Your task to perform on an android device: turn off picture-in-picture Image 0: 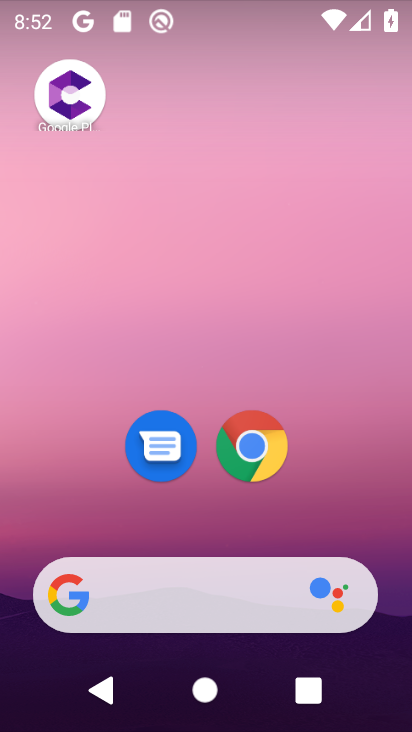
Step 0: drag from (363, 425) to (367, 78)
Your task to perform on an android device: turn off picture-in-picture Image 1: 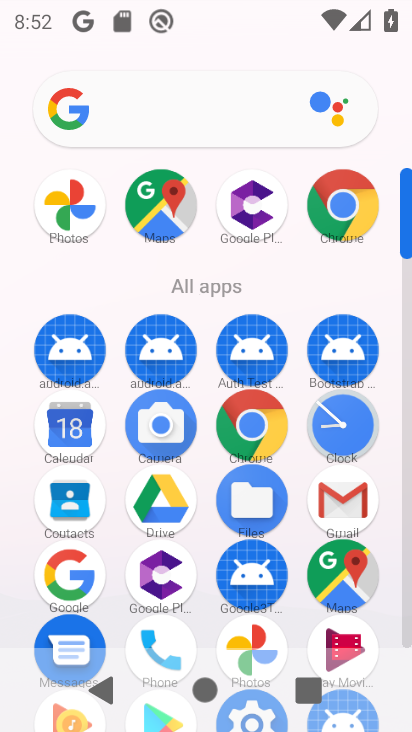
Step 1: drag from (389, 522) to (395, 226)
Your task to perform on an android device: turn off picture-in-picture Image 2: 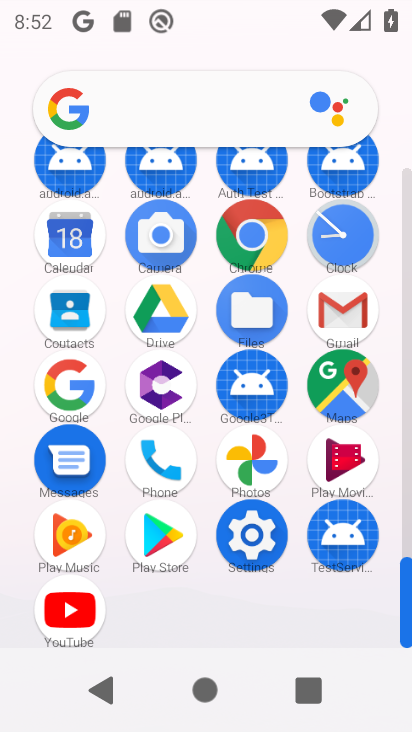
Step 2: click (255, 532)
Your task to perform on an android device: turn off picture-in-picture Image 3: 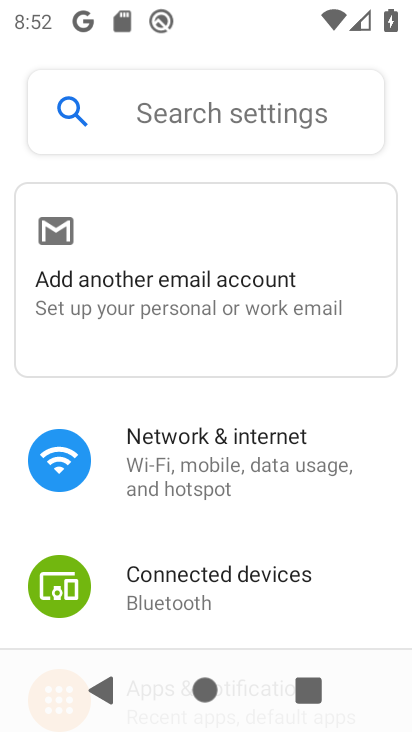
Step 3: drag from (374, 590) to (387, 382)
Your task to perform on an android device: turn off picture-in-picture Image 4: 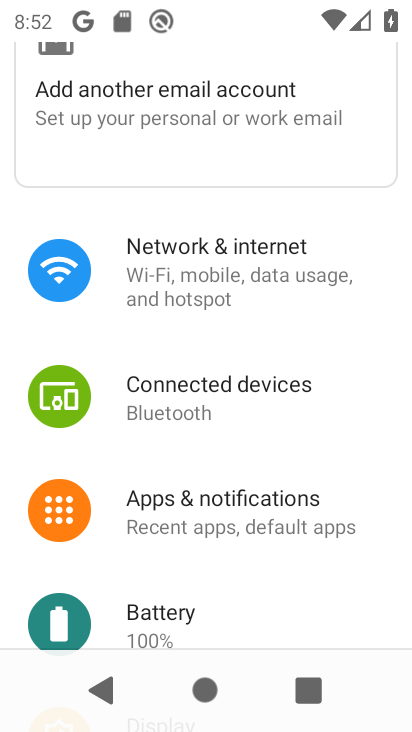
Step 4: drag from (364, 592) to (381, 404)
Your task to perform on an android device: turn off picture-in-picture Image 5: 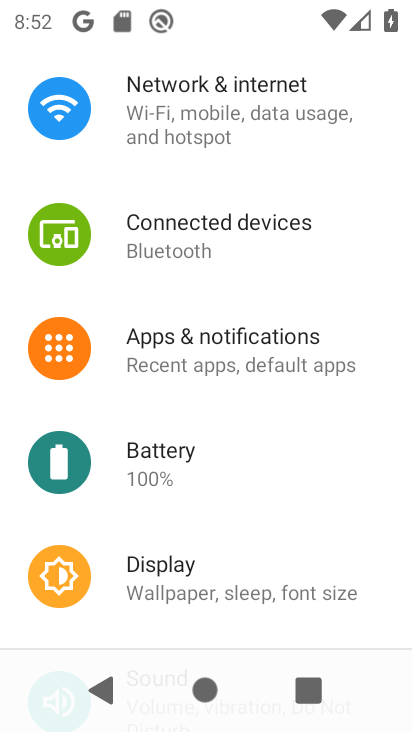
Step 5: click (263, 353)
Your task to perform on an android device: turn off picture-in-picture Image 6: 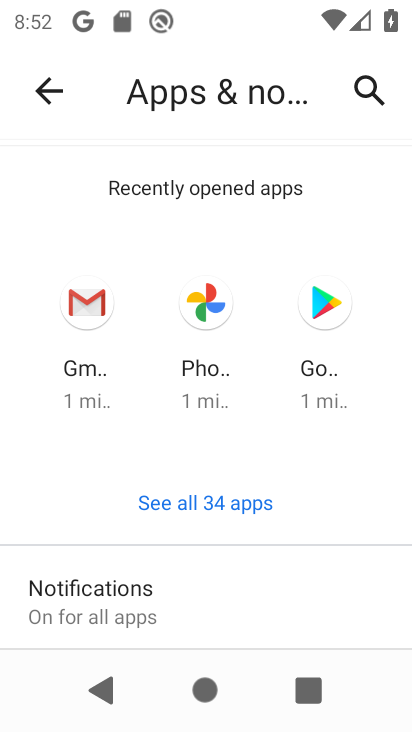
Step 6: drag from (366, 561) to (379, 349)
Your task to perform on an android device: turn off picture-in-picture Image 7: 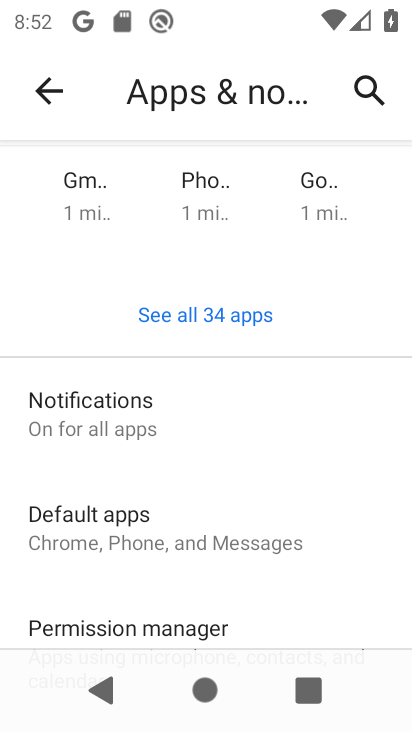
Step 7: drag from (360, 563) to (378, 305)
Your task to perform on an android device: turn off picture-in-picture Image 8: 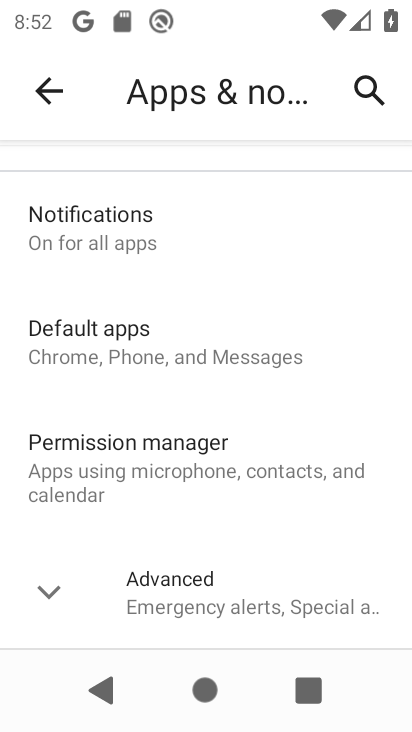
Step 8: click (310, 599)
Your task to perform on an android device: turn off picture-in-picture Image 9: 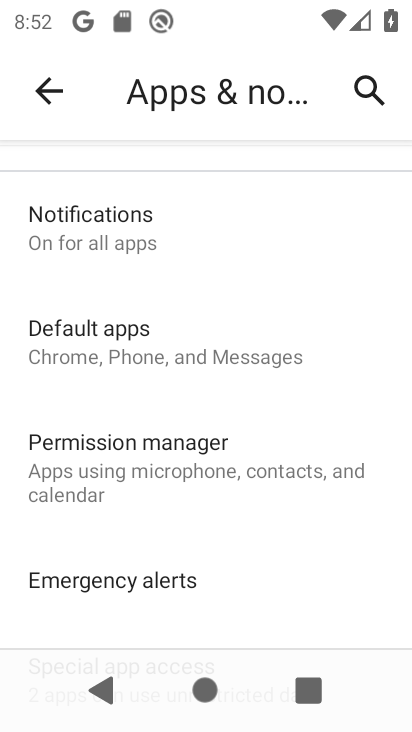
Step 9: drag from (380, 585) to (382, 344)
Your task to perform on an android device: turn off picture-in-picture Image 10: 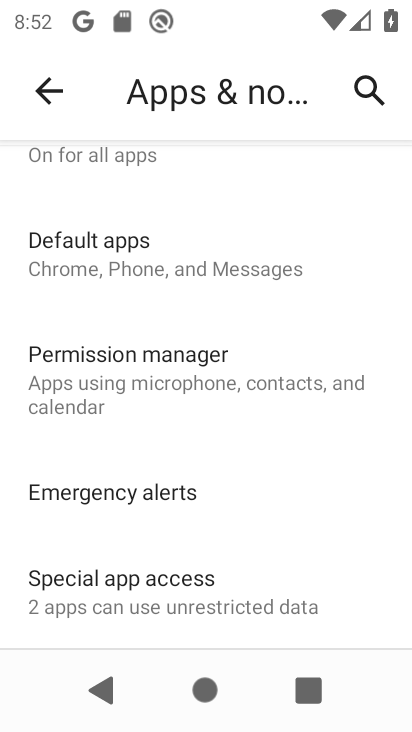
Step 10: click (267, 604)
Your task to perform on an android device: turn off picture-in-picture Image 11: 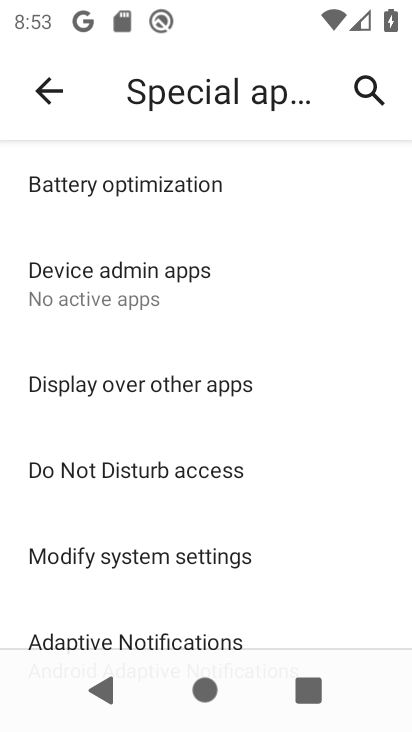
Step 11: drag from (368, 592) to (378, 429)
Your task to perform on an android device: turn off picture-in-picture Image 12: 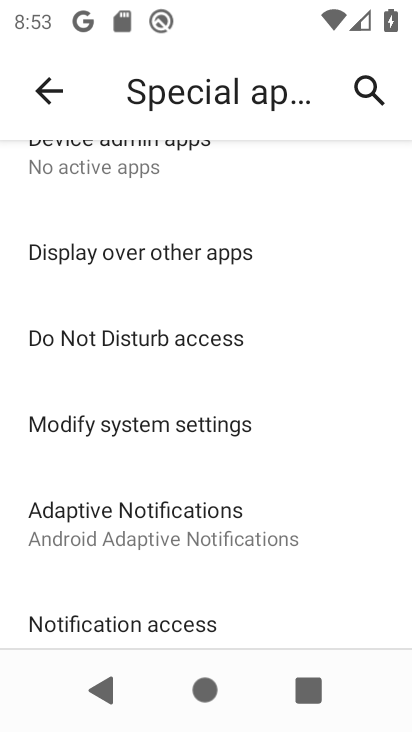
Step 12: drag from (362, 603) to (358, 382)
Your task to perform on an android device: turn off picture-in-picture Image 13: 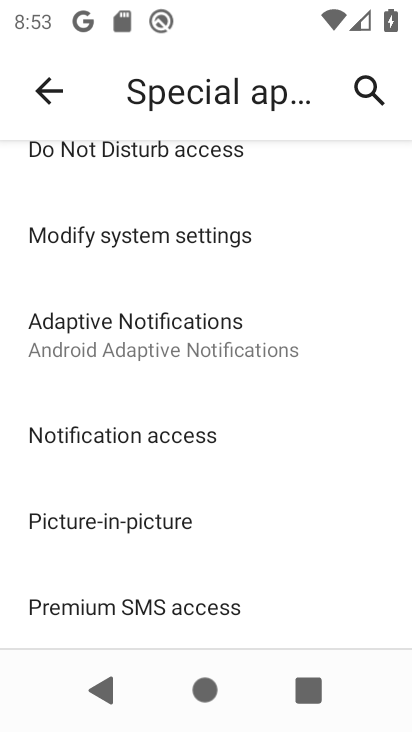
Step 13: drag from (375, 563) to (370, 388)
Your task to perform on an android device: turn off picture-in-picture Image 14: 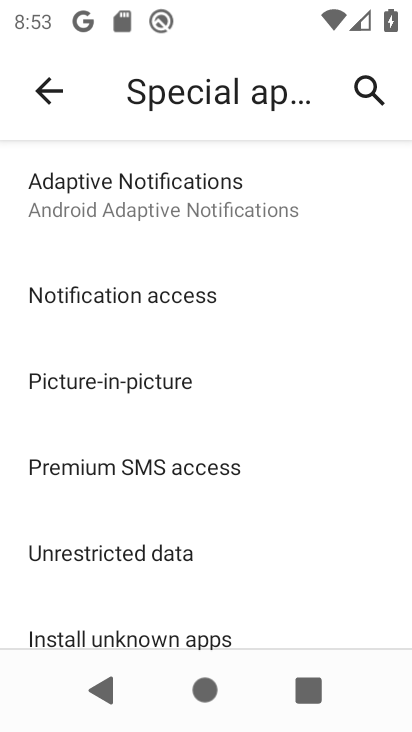
Step 14: click (168, 384)
Your task to perform on an android device: turn off picture-in-picture Image 15: 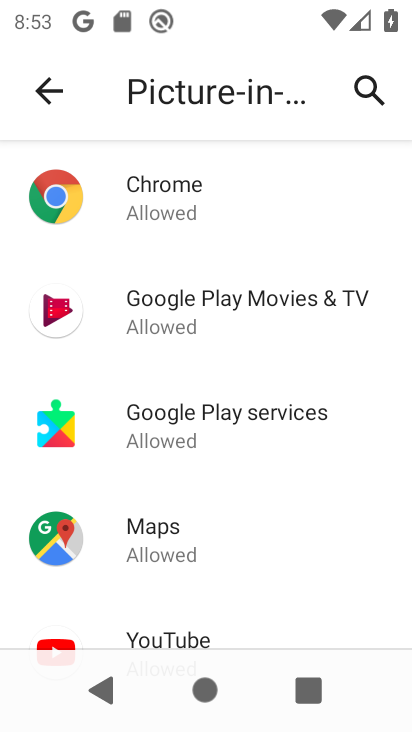
Step 15: drag from (365, 589) to (358, 361)
Your task to perform on an android device: turn off picture-in-picture Image 16: 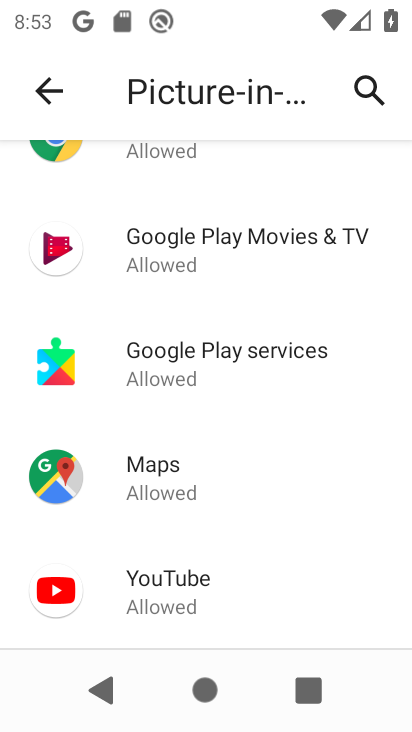
Step 16: click (186, 603)
Your task to perform on an android device: turn off picture-in-picture Image 17: 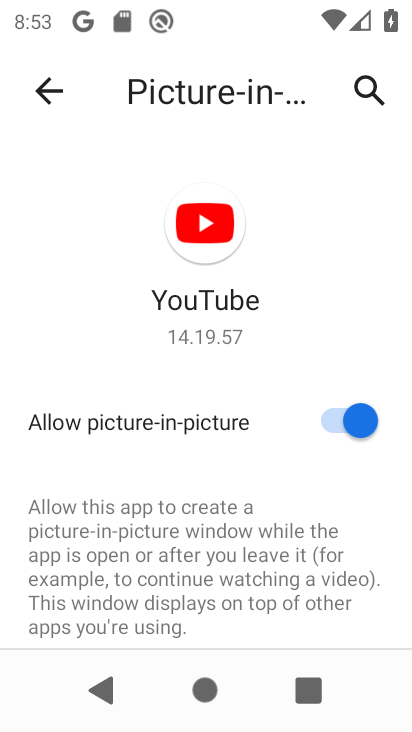
Step 17: click (335, 417)
Your task to perform on an android device: turn off picture-in-picture Image 18: 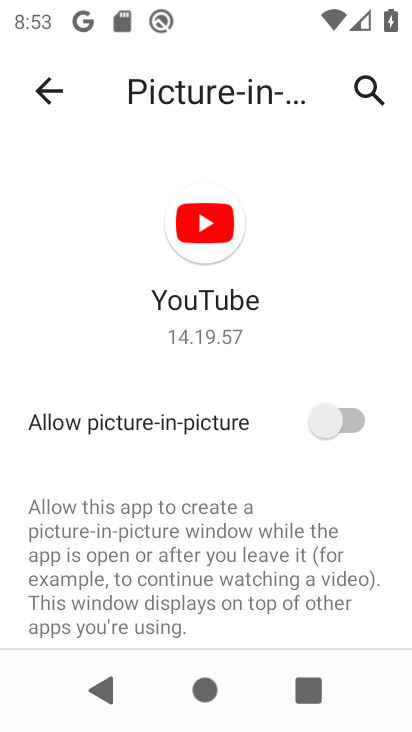
Step 18: task complete